Your task to perform on an android device: refresh tabs in the chrome app Image 0: 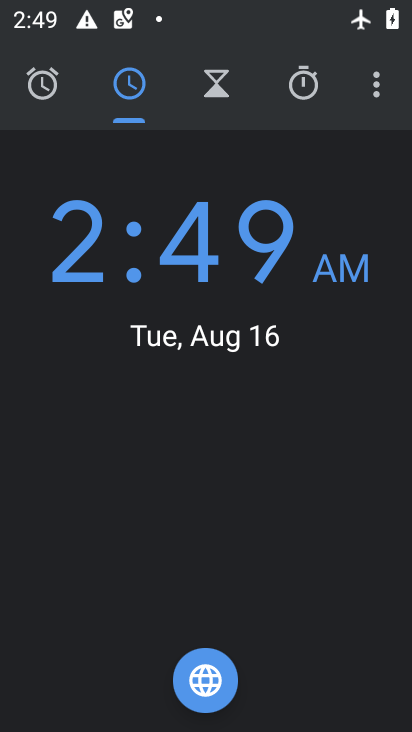
Step 0: press home button
Your task to perform on an android device: refresh tabs in the chrome app Image 1: 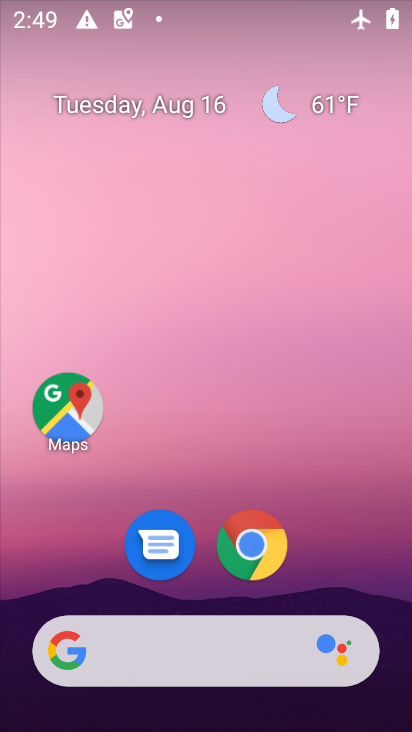
Step 1: click (265, 555)
Your task to perform on an android device: refresh tabs in the chrome app Image 2: 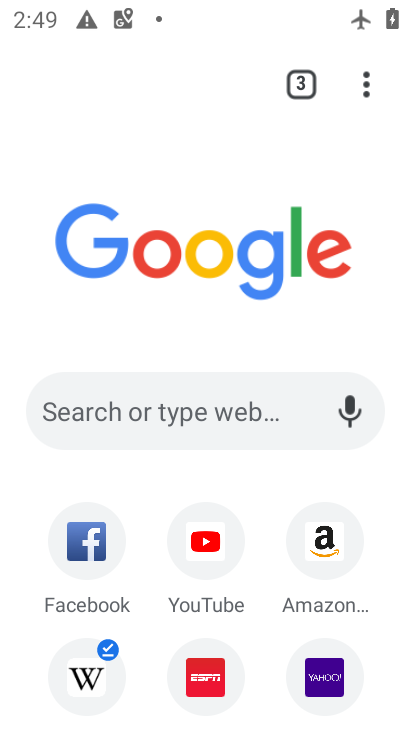
Step 2: click (364, 84)
Your task to perform on an android device: refresh tabs in the chrome app Image 3: 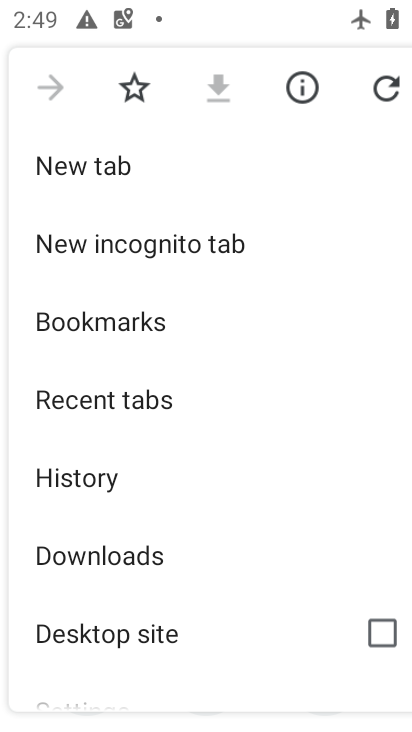
Step 3: click (379, 88)
Your task to perform on an android device: refresh tabs in the chrome app Image 4: 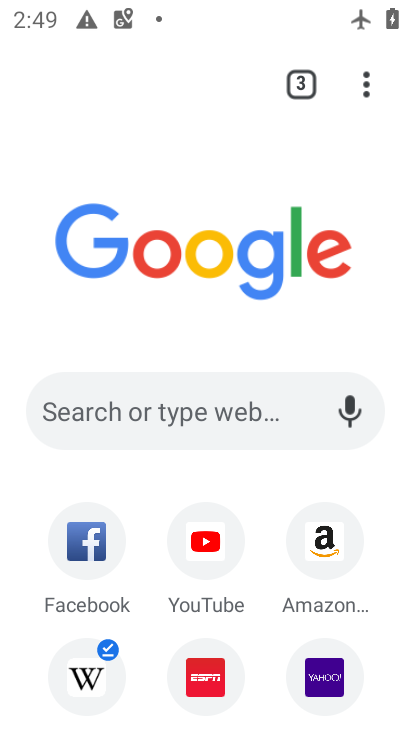
Step 4: task complete